Your task to perform on an android device: delete browsing data in the chrome app Image 0: 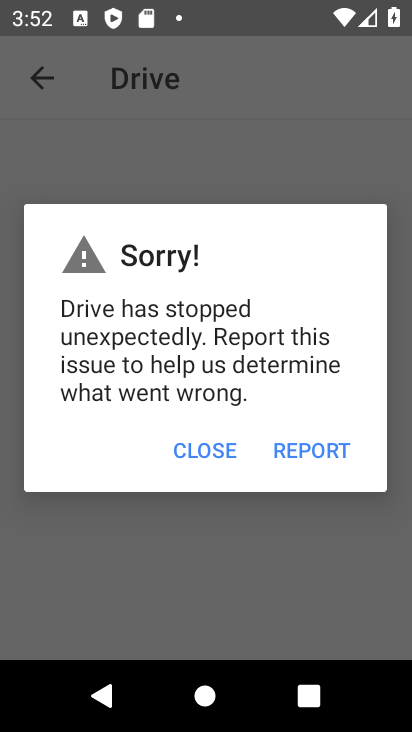
Step 0: press home button
Your task to perform on an android device: delete browsing data in the chrome app Image 1: 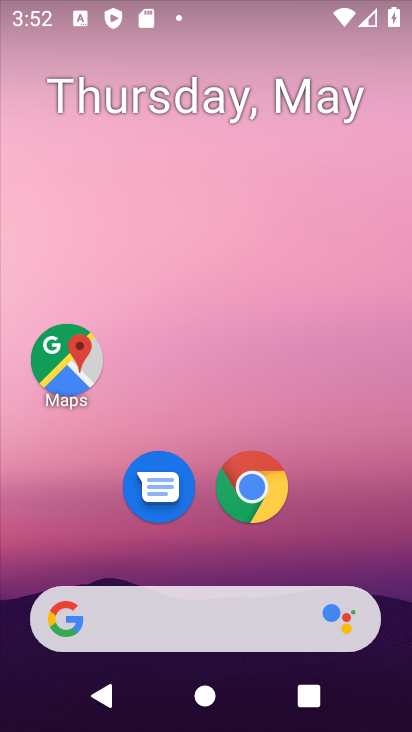
Step 1: click (241, 480)
Your task to perform on an android device: delete browsing data in the chrome app Image 2: 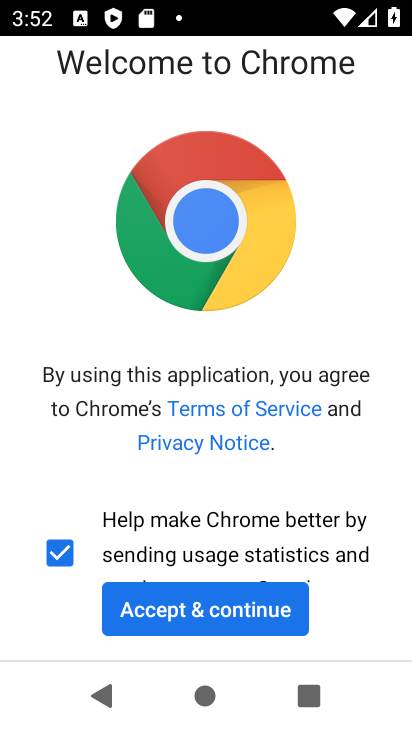
Step 2: click (266, 607)
Your task to perform on an android device: delete browsing data in the chrome app Image 3: 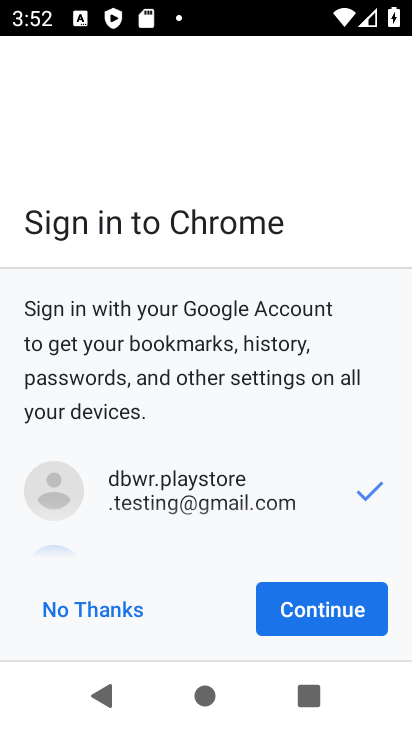
Step 3: click (331, 627)
Your task to perform on an android device: delete browsing data in the chrome app Image 4: 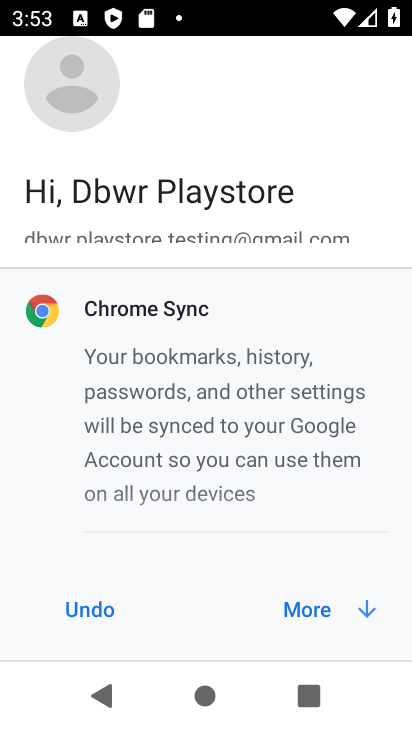
Step 4: click (305, 603)
Your task to perform on an android device: delete browsing data in the chrome app Image 5: 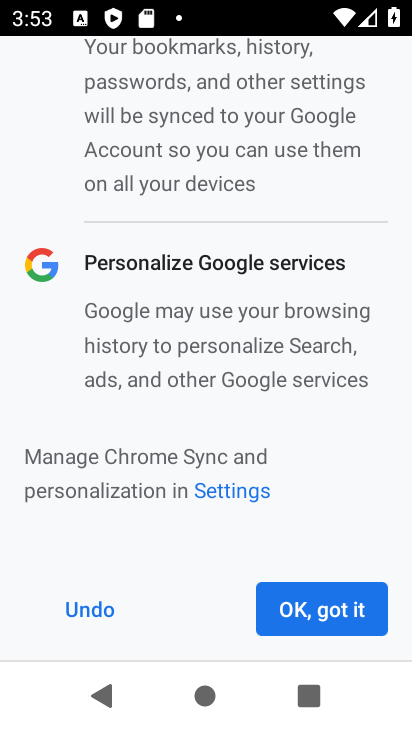
Step 5: click (305, 603)
Your task to perform on an android device: delete browsing data in the chrome app Image 6: 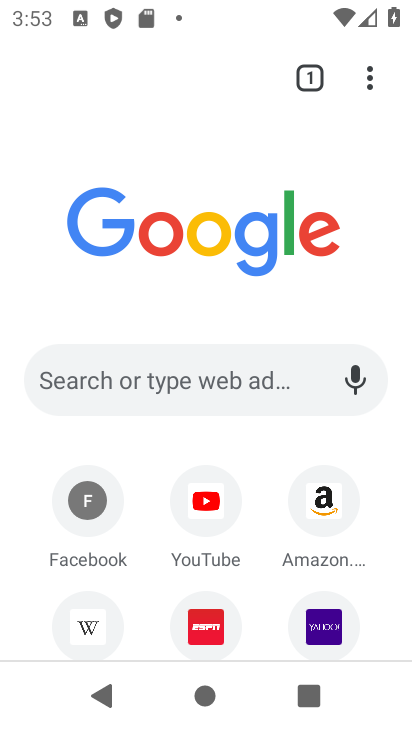
Step 6: press home button
Your task to perform on an android device: delete browsing data in the chrome app Image 7: 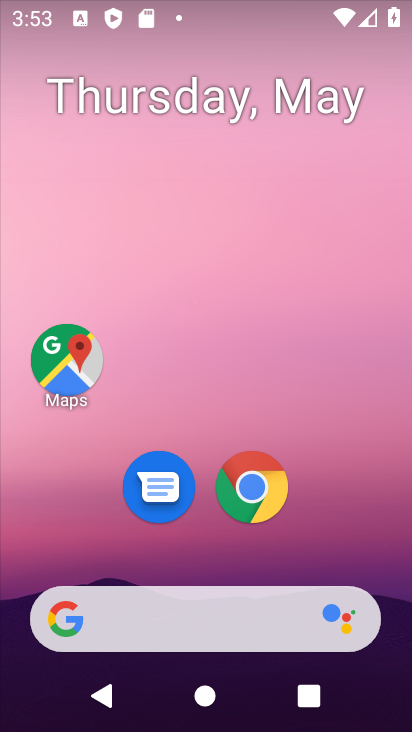
Step 7: click (63, 375)
Your task to perform on an android device: delete browsing data in the chrome app Image 8: 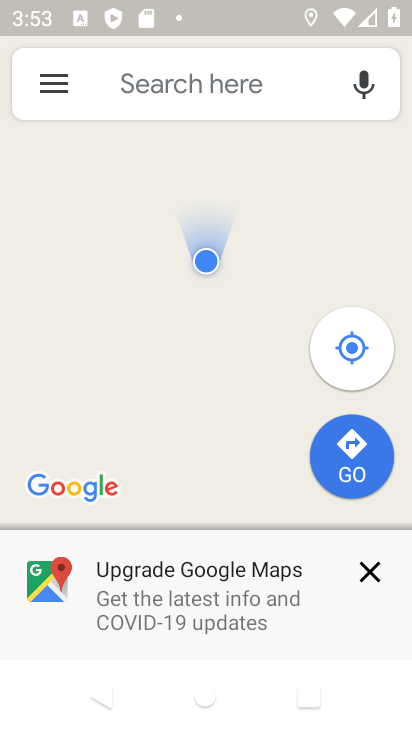
Step 8: click (56, 76)
Your task to perform on an android device: delete browsing data in the chrome app Image 9: 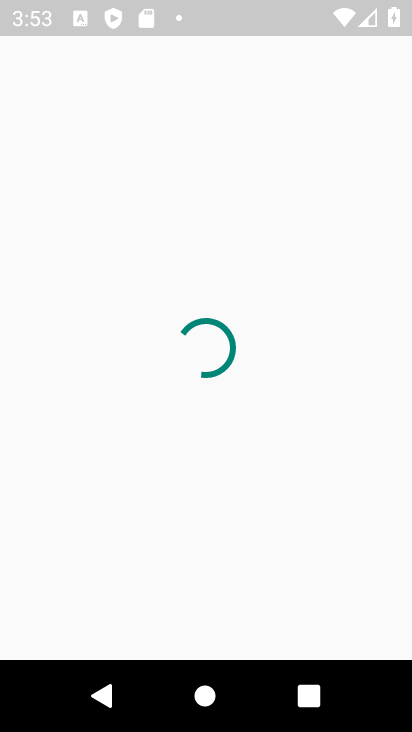
Step 9: press back button
Your task to perform on an android device: delete browsing data in the chrome app Image 10: 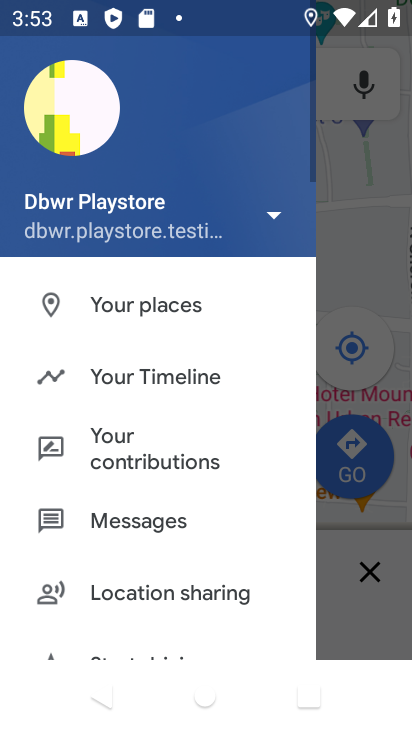
Step 10: drag from (313, 610) to (270, 438)
Your task to perform on an android device: delete browsing data in the chrome app Image 11: 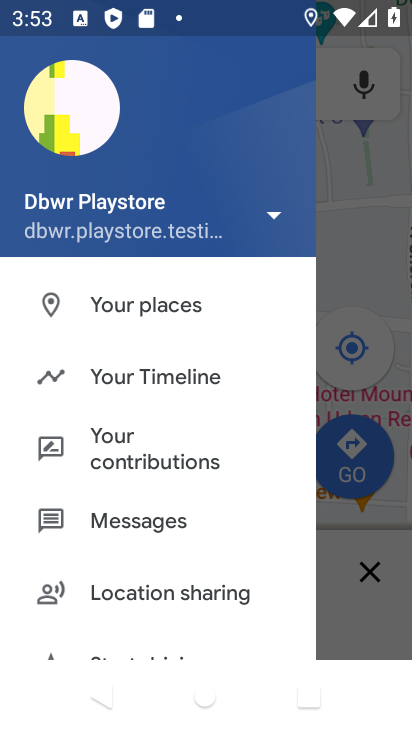
Step 11: click (181, 370)
Your task to perform on an android device: delete browsing data in the chrome app Image 12: 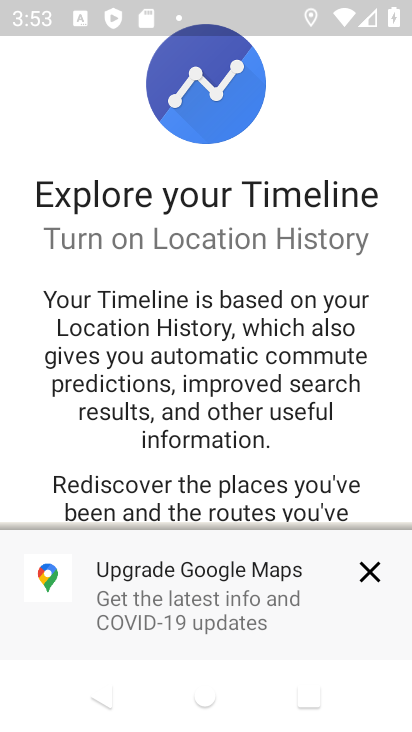
Step 12: click (368, 568)
Your task to perform on an android device: delete browsing data in the chrome app Image 13: 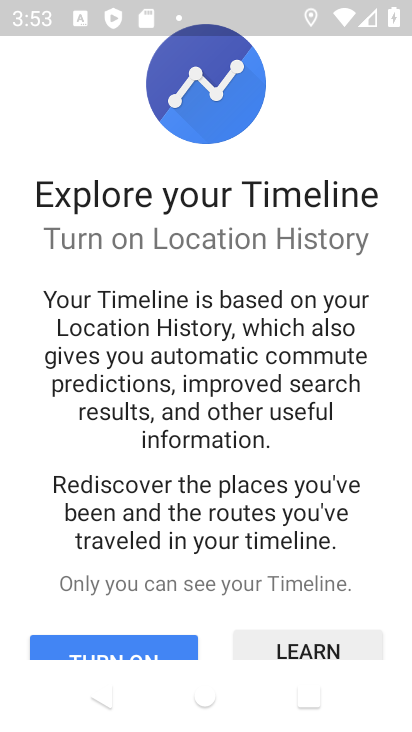
Step 13: drag from (291, 601) to (248, 303)
Your task to perform on an android device: delete browsing data in the chrome app Image 14: 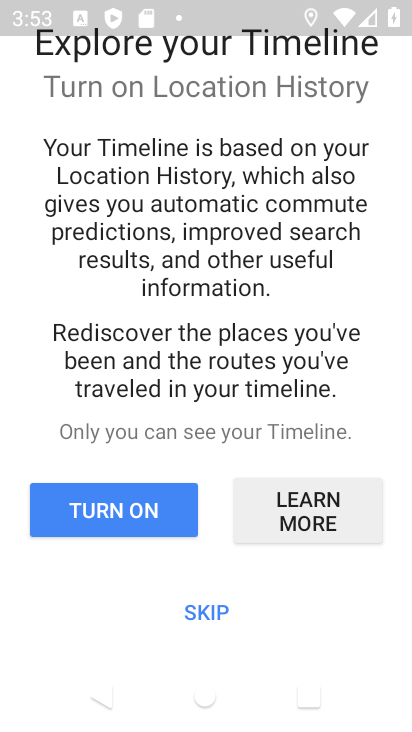
Step 14: click (124, 518)
Your task to perform on an android device: delete browsing data in the chrome app Image 15: 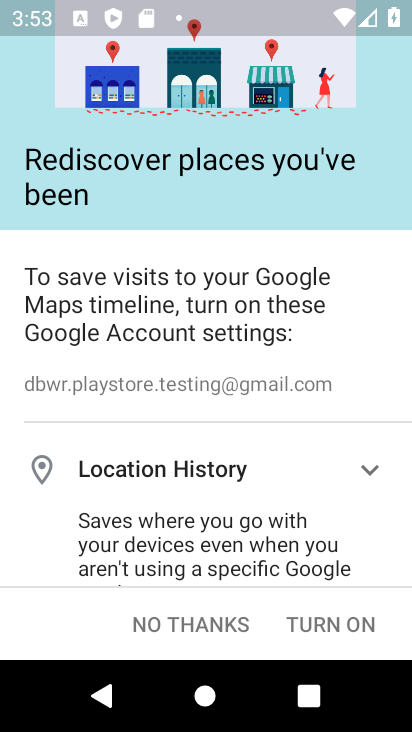
Step 15: click (313, 614)
Your task to perform on an android device: delete browsing data in the chrome app Image 16: 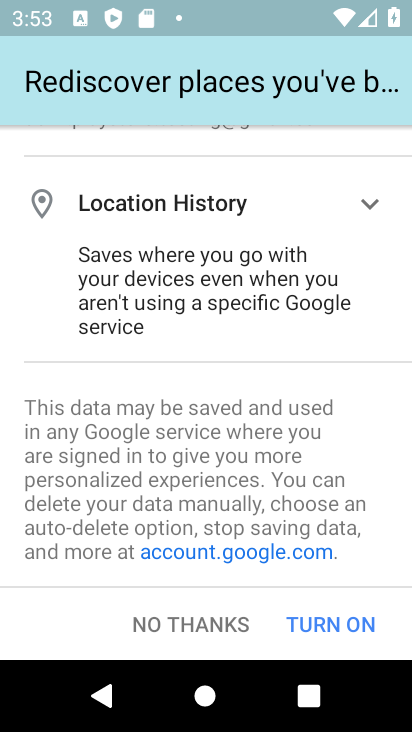
Step 16: click (314, 615)
Your task to perform on an android device: delete browsing data in the chrome app Image 17: 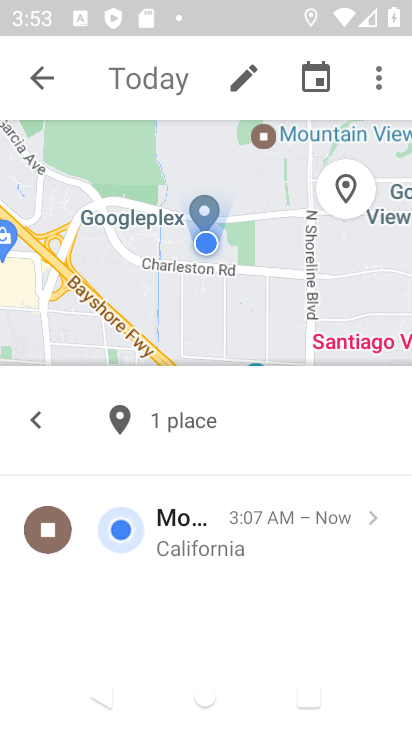
Step 17: click (368, 79)
Your task to perform on an android device: delete browsing data in the chrome app Image 18: 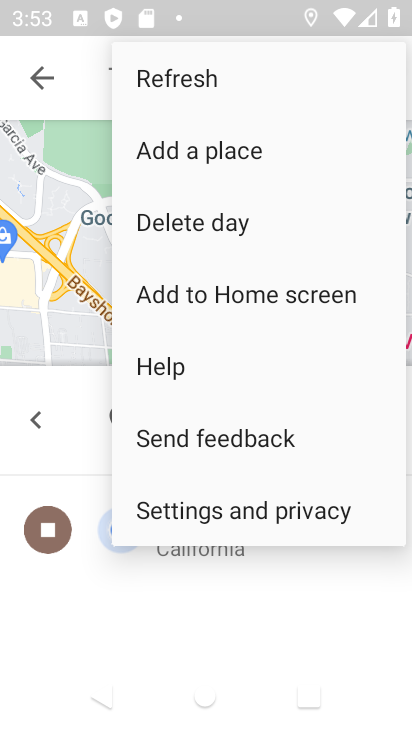
Step 18: click (221, 517)
Your task to perform on an android device: delete browsing data in the chrome app Image 19: 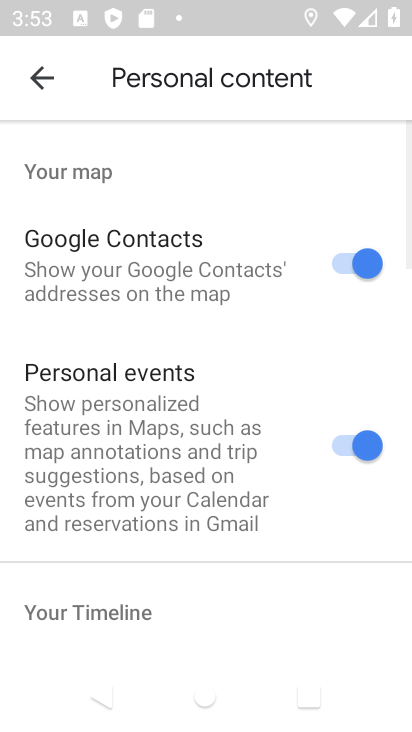
Step 19: drag from (213, 648) to (196, 271)
Your task to perform on an android device: delete browsing data in the chrome app Image 20: 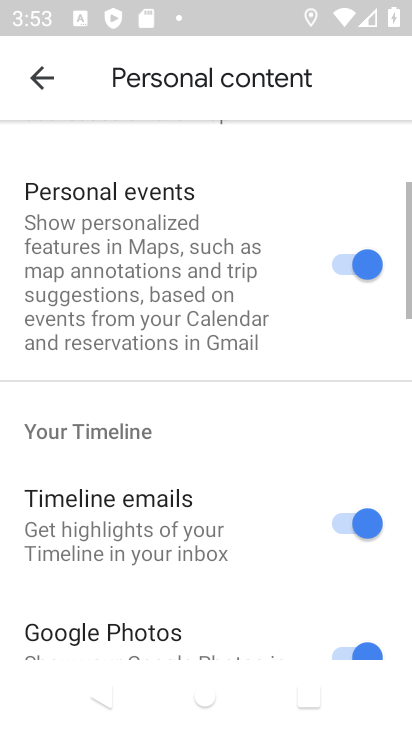
Step 20: drag from (197, 456) to (208, 232)
Your task to perform on an android device: delete browsing data in the chrome app Image 21: 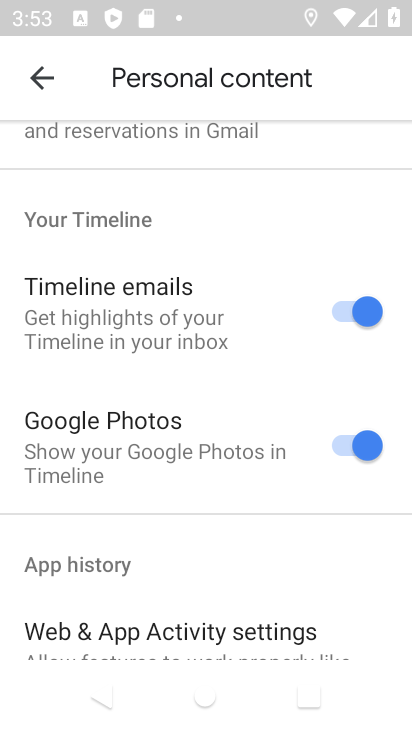
Step 21: drag from (170, 475) to (180, 202)
Your task to perform on an android device: delete browsing data in the chrome app Image 22: 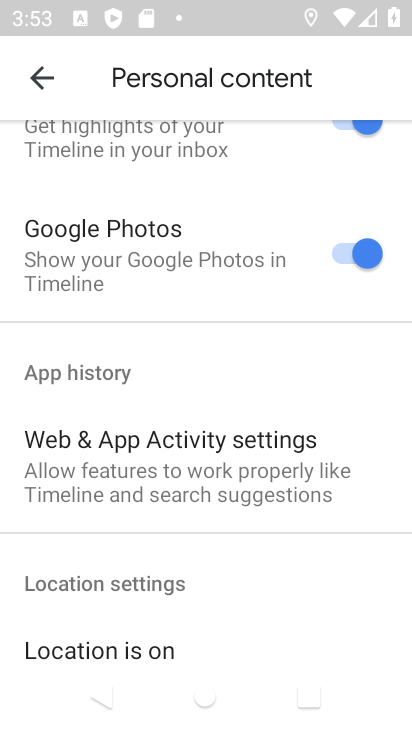
Step 22: drag from (211, 446) to (219, 236)
Your task to perform on an android device: delete browsing data in the chrome app Image 23: 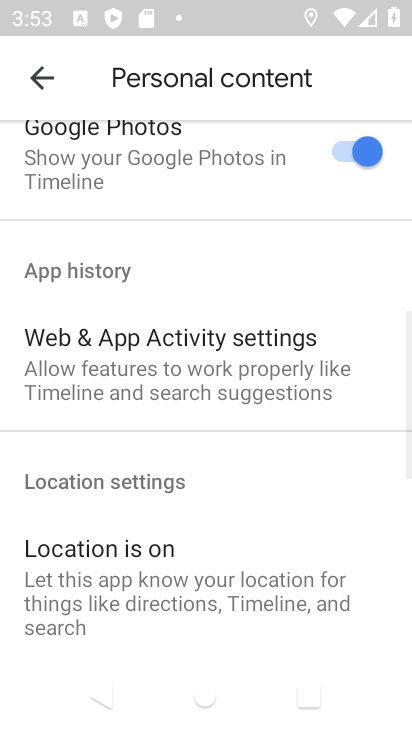
Step 23: drag from (219, 579) to (228, 284)
Your task to perform on an android device: delete browsing data in the chrome app Image 24: 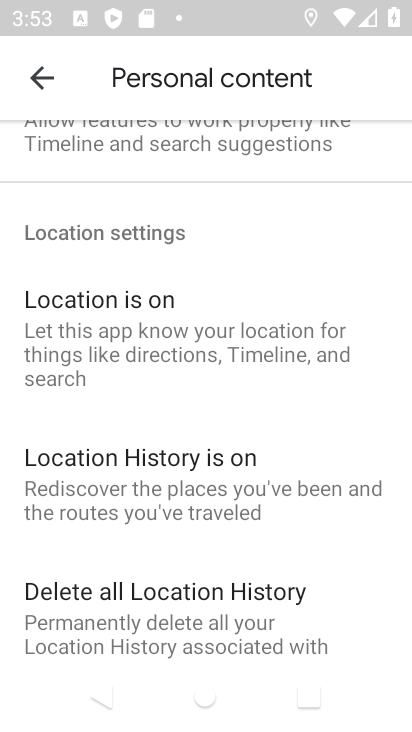
Step 24: drag from (230, 598) to (236, 415)
Your task to perform on an android device: delete browsing data in the chrome app Image 25: 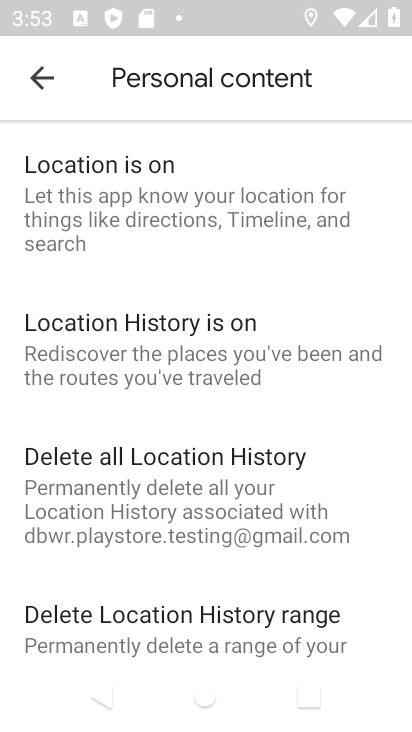
Step 25: click (230, 461)
Your task to perform on an android device: delete browsing data in the chrome app Image 26: 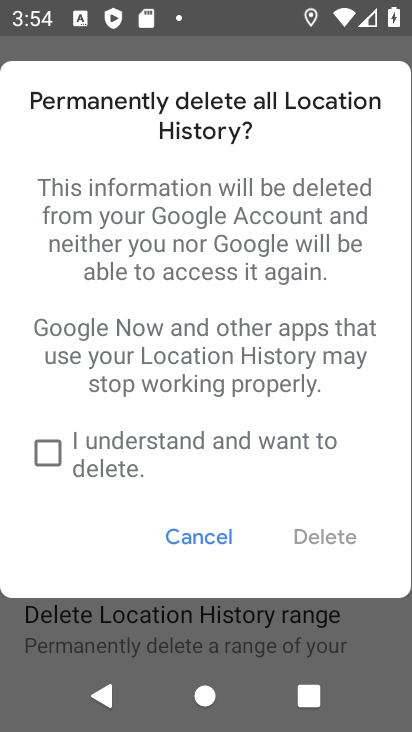
Step 26: click (66, 432)
Your task to perform on an android device: delete browsing data in the chrome app Image 27: 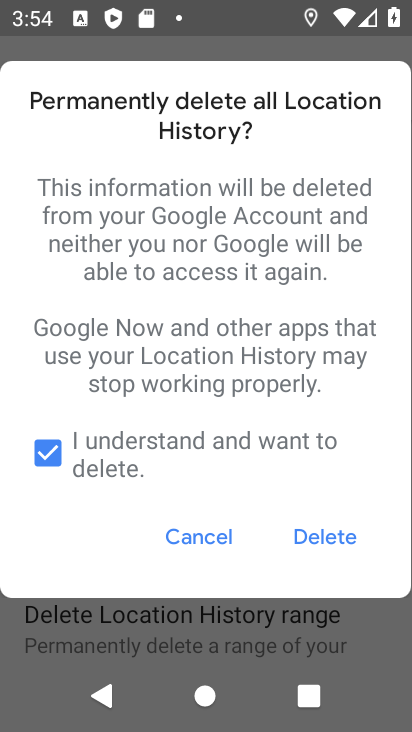
Step 27: click (311, 525)
Your task to perform on an android device: delete browsing data in the chrome app Image 28: 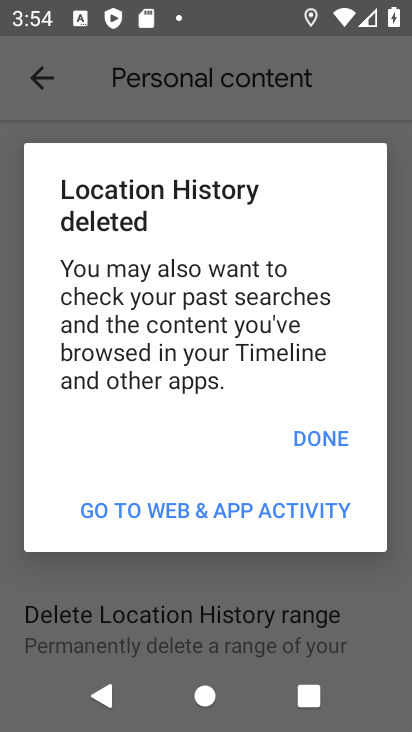
Step 28: task complete